Your task to perform on an android device: toggle priority inbox in the gmail app Image 0: 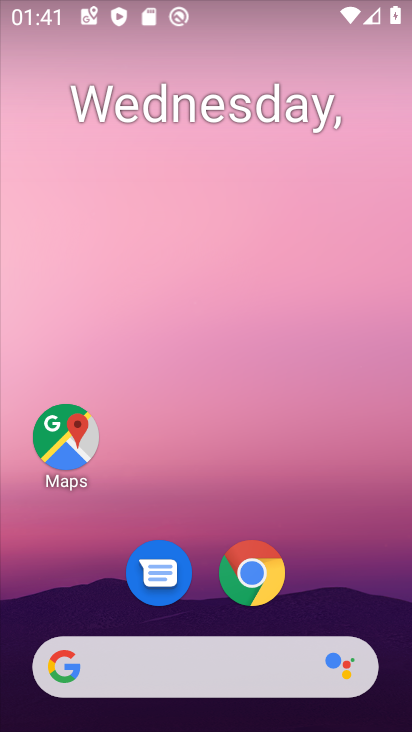
Step 0: drag from (333, 571) to (221, 104)
Your task to perform on an android device: toggle priority inbox in the gmail app Image 1: 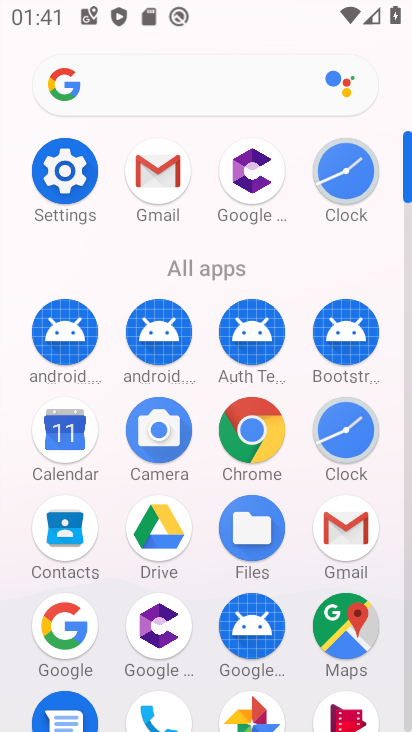
Step 1: click (156, 171)
Your task to perform on an android device: toggle priority inbox in the gmail app Image 2: 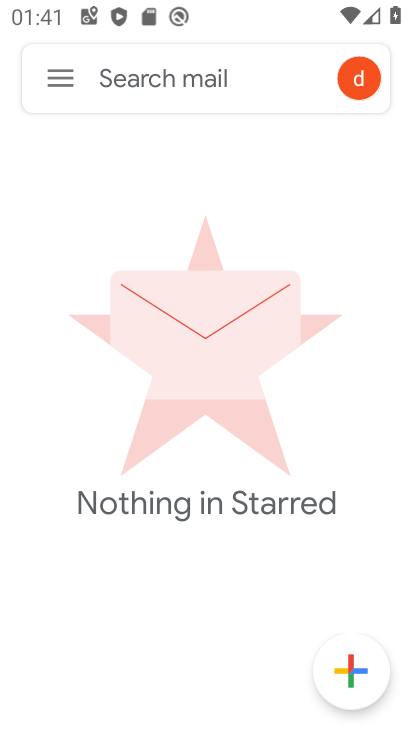
Step 2: click (62, 78)
Your task to perform on an android device: toggle priority inbox in the gmail app Image 3: 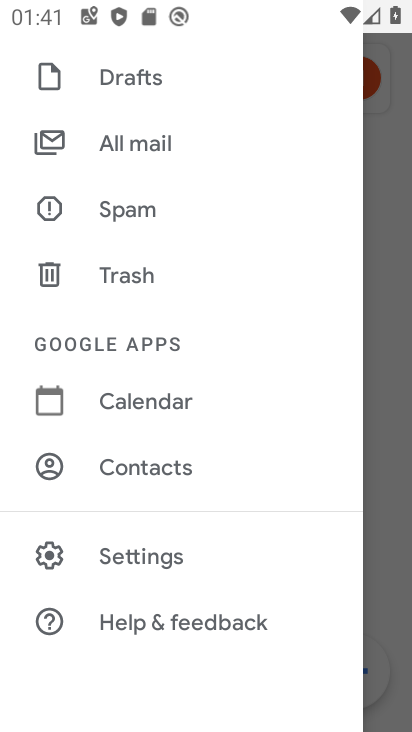
Step 3: click (170, 557)
Your task to perform on an android device: toggle priority inbox in the gmail app Image 4: 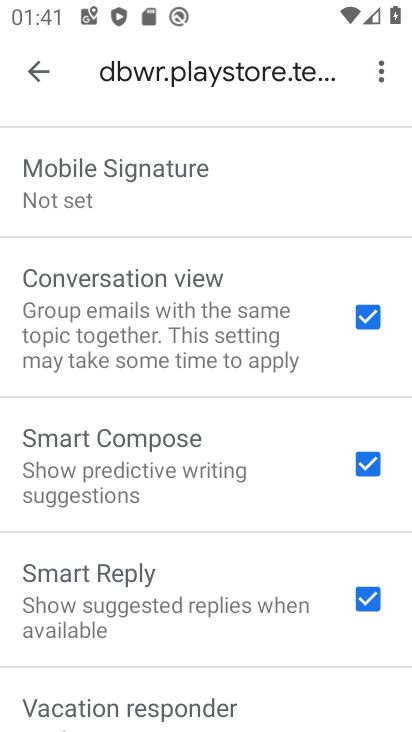
Step 4: drag from (240, 231) to (277, 430)
Your task to perform on an android device: toggle priority inbox in the gmail app Image 5: 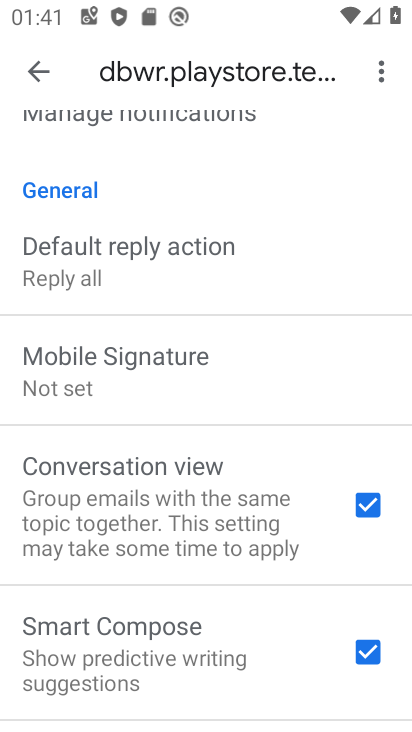
Step 5: drag from (258, 245) to (278, 460)
Your task to perform on an android device: toggle priority inbox in the gmail app Image 6: 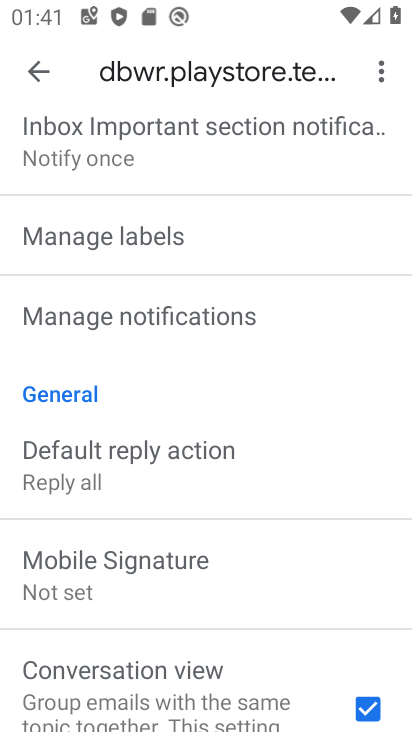
Step 6: drag from (263, 263) to (275, 505)
Your task to perform on an android device: toggle priority inbox in the gmail app Image 7: 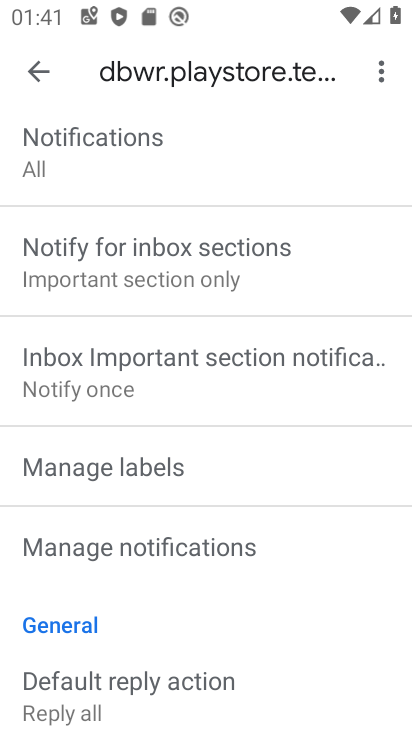
Step 7: drag from (240, 208) to (272, 416)
Your task to perform on an android device: toggle priority inbox in the gmail app Image 8: 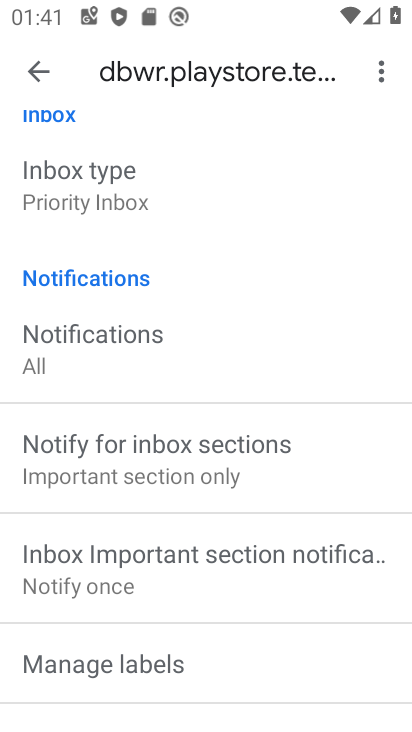
Step 8: click (131, 201)
Your task to perform on an android device: toggle priority inbox in the gmail app Image 9: 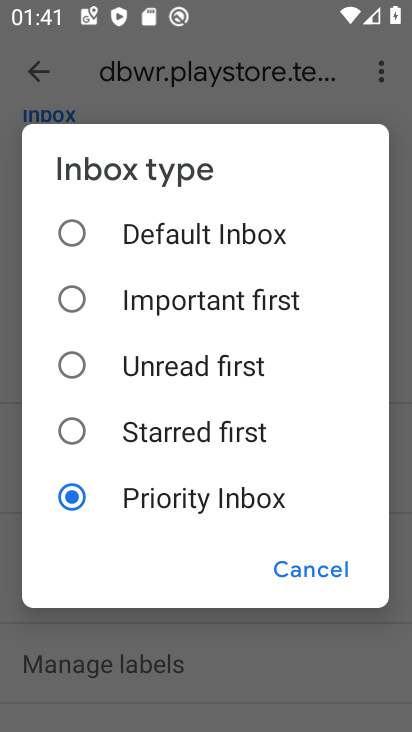
Step 9: click (72, 221)
Your task to perform on an android device: toggle priority inbox in the gmail app Image 10: 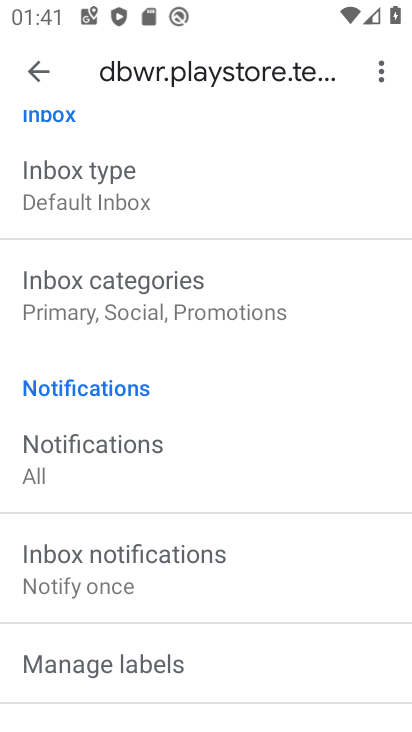
Step 10: task complete